Your task to perform on an android device: turn on bluetooth scan Image 0: 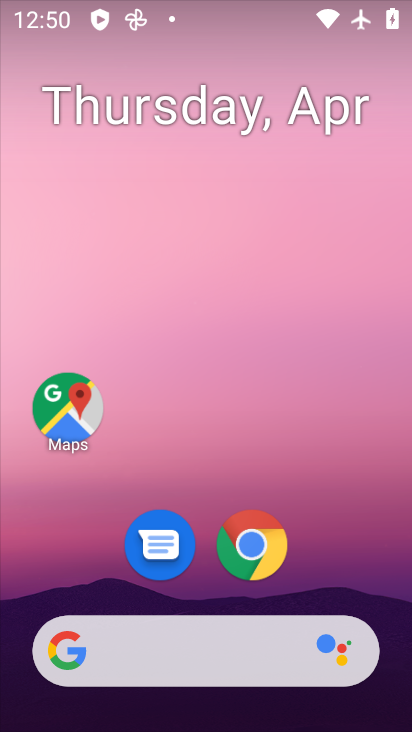
Step 0: drag from (320, 576) to (252, 131)
Your task to perform on an android device: turn on bluetooth scan Image 1: 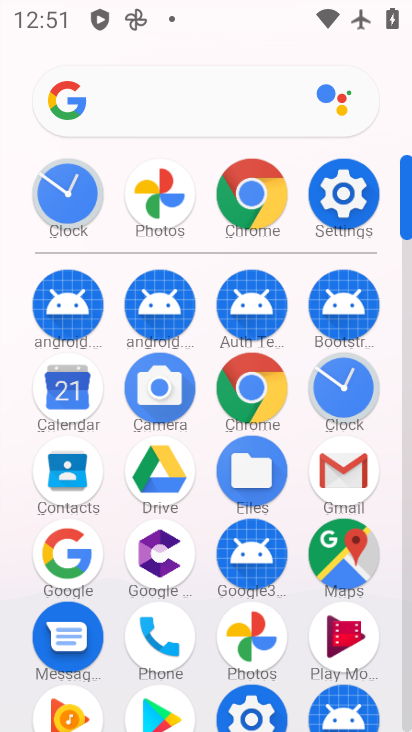
Step 1: click (343, 203)
Your task to perform on an android device: turn on bluetooth scan Image 2: 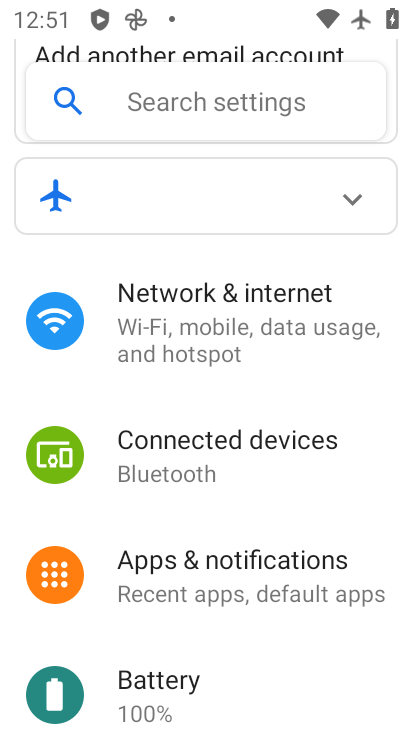
Step 2: drag from (237, 661) to (224, 183)
Your task to perform on an android device: turn on bluetooth scan Image 3: 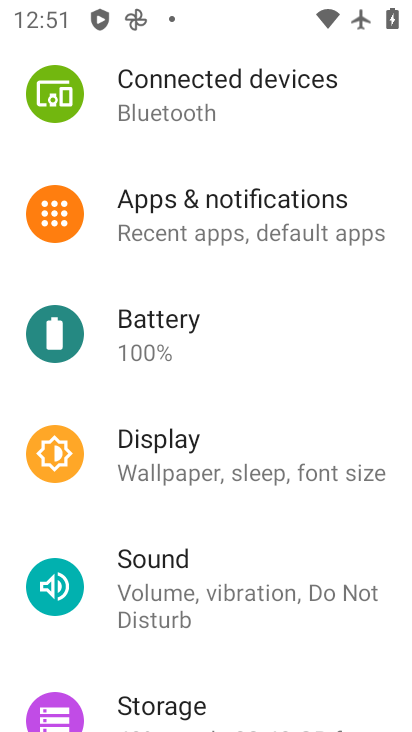
Step 3: drag from (216, 622) to (223, 219)
Your task to perform on an android device: turn on bluetooth scan Image 4: 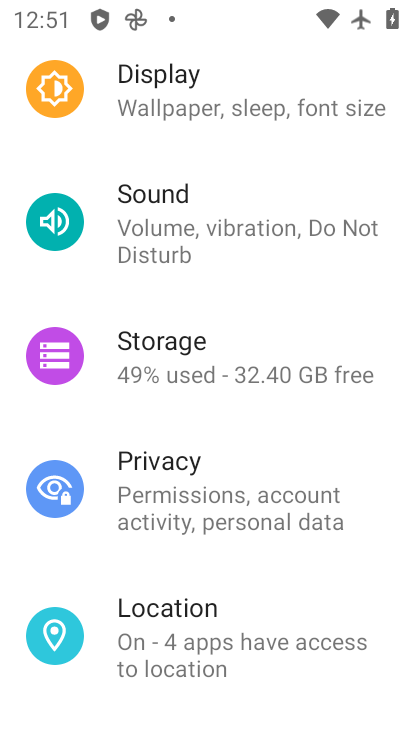
Step 4: click (285, 628)
Your task to perform on an android device: turn on bluetooth scan Image 5: 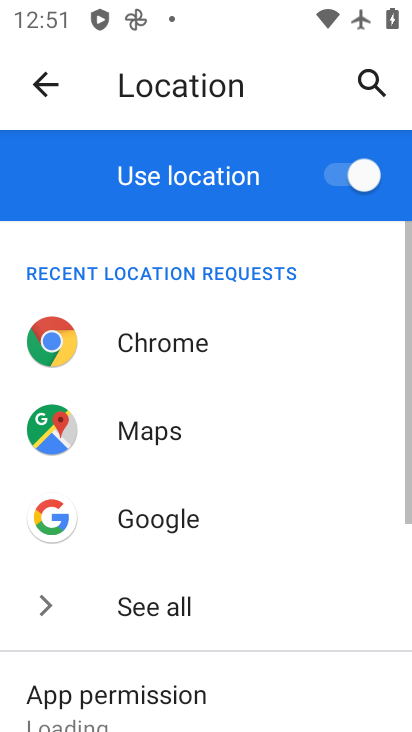
Step 5: drag from (288, 530) to (298, 190)
Your task to perform on an android device: turn on bluetooth scan Image 6: 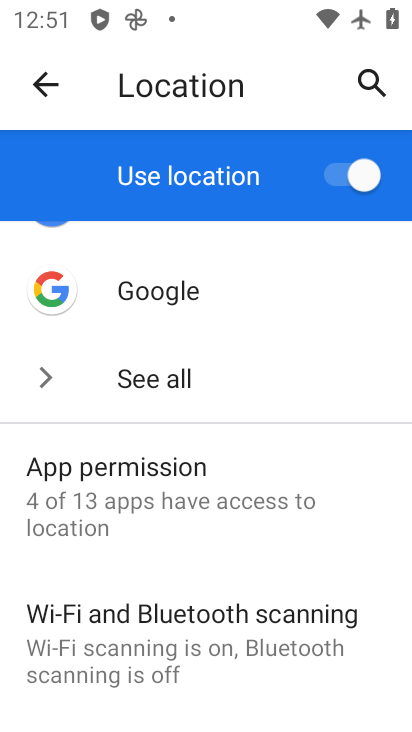
Step 6: drag from (266, 552) to (286, 314)
Your task to perform on an android device: turn on bluetooth scan Image 7: 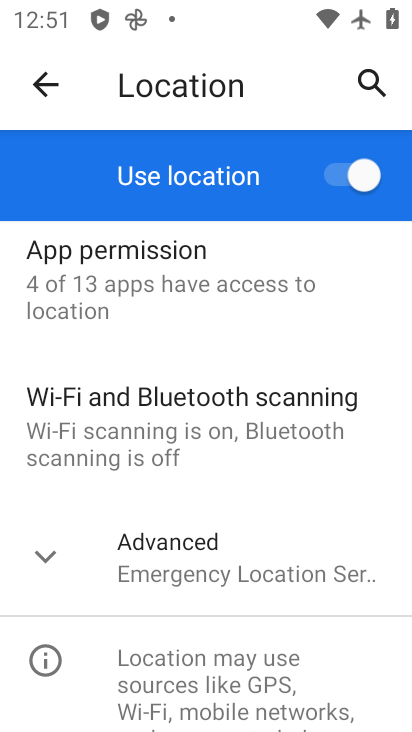
Step 7: click (181, 428)
Your task to perform on an android device: turn on bluetooth scan Image 8: 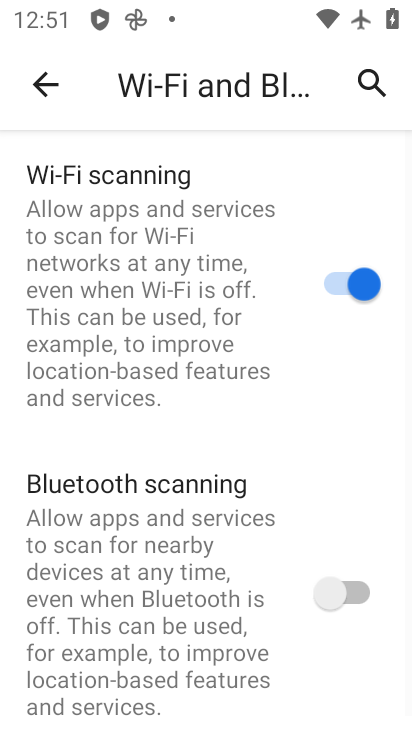
Step 8: click (364, 596)
Your task to perform on an android device: turn on bluetooth scan Image 9: 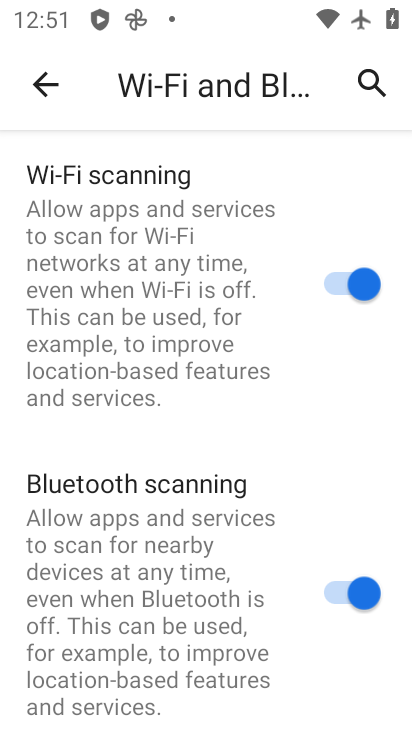
Step 9: task complete